Your task to perform on an android device: Open notification settings Image 0: 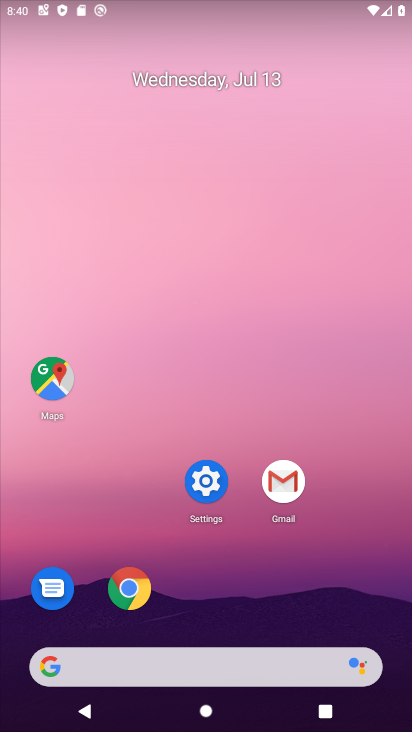
Step 0: click (124, 587)
Your task to perform on an android device: Open notification settings Image 1: 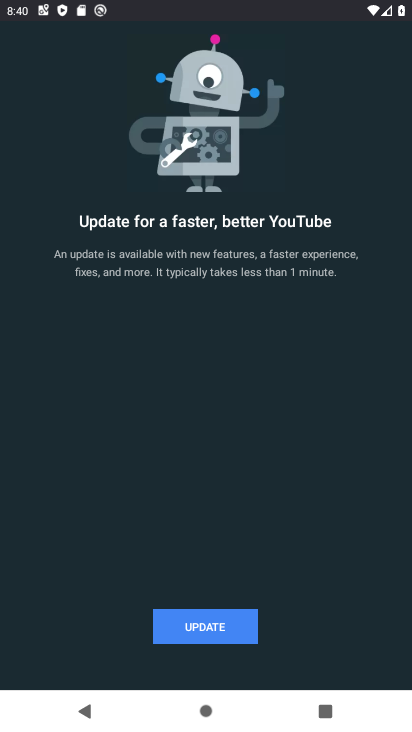
Step 1: press back button
Your task to perform on an android device: Open notification settings Image 2: 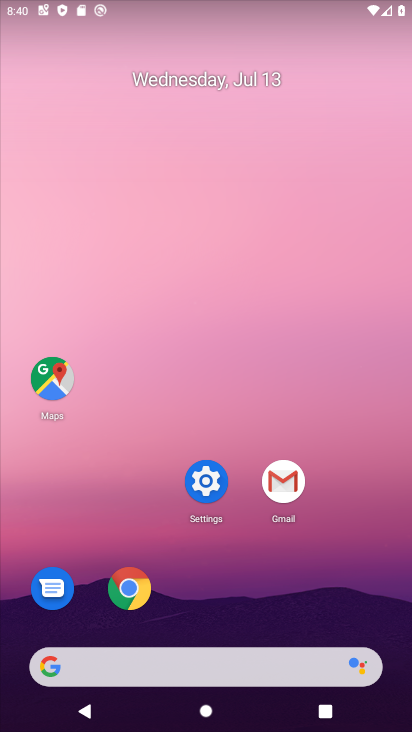
Step 2: click (122, 602)
Your task to perform on an android device: Open notification settings Image 3: 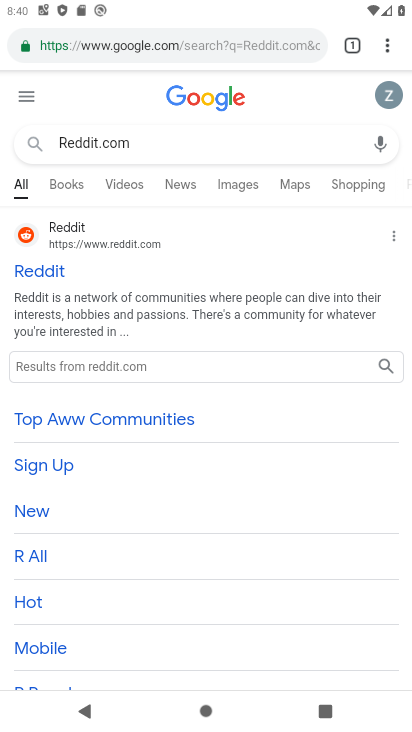
Step 3: press home button
Your task to perform on an android device: Open notification settings Image 4: 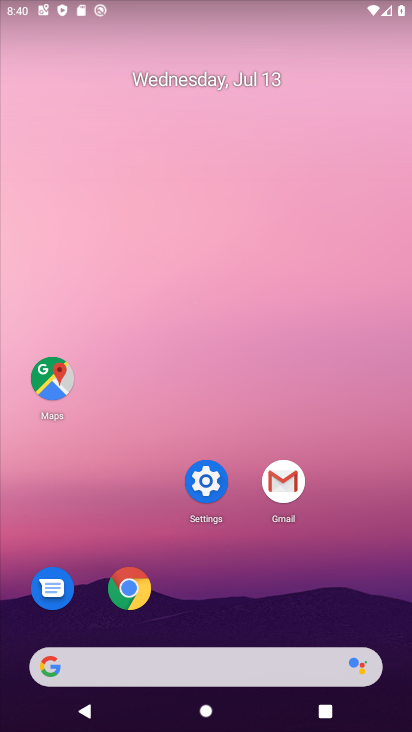
Step 4: click (207, 469)
Your task to perform on an android device: Open notification settings Image 5: 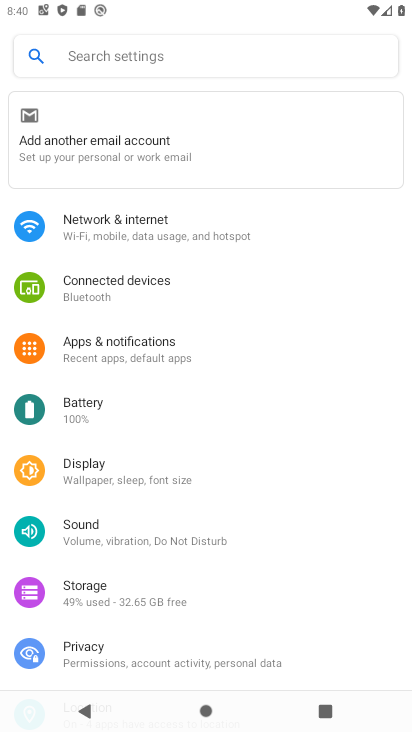
Step 5: click (98, 341)
Your task to perform on an android device: Open notification settings Image 6: 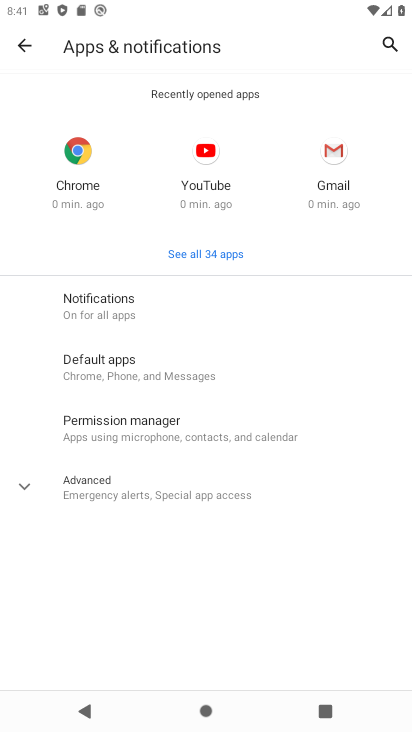
Step 6: task complete